Your task to perform on an android device: Search for the best way to get rid of a cold Image 0: 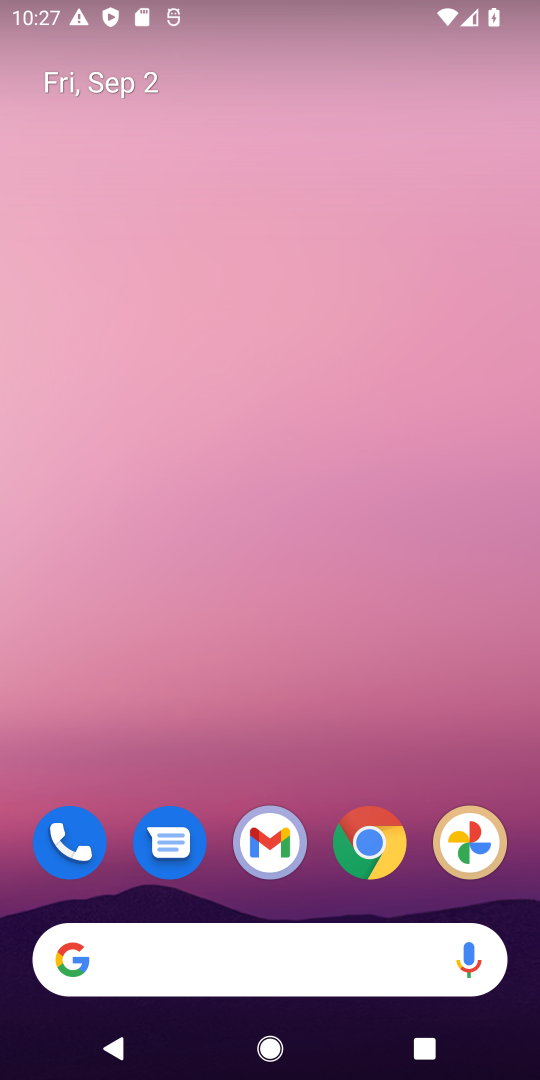
Step 0: drag from (355, 717) to (425, 3)
Your task to perform on an android device: Search for the best way to get rid of a cold Image 1: 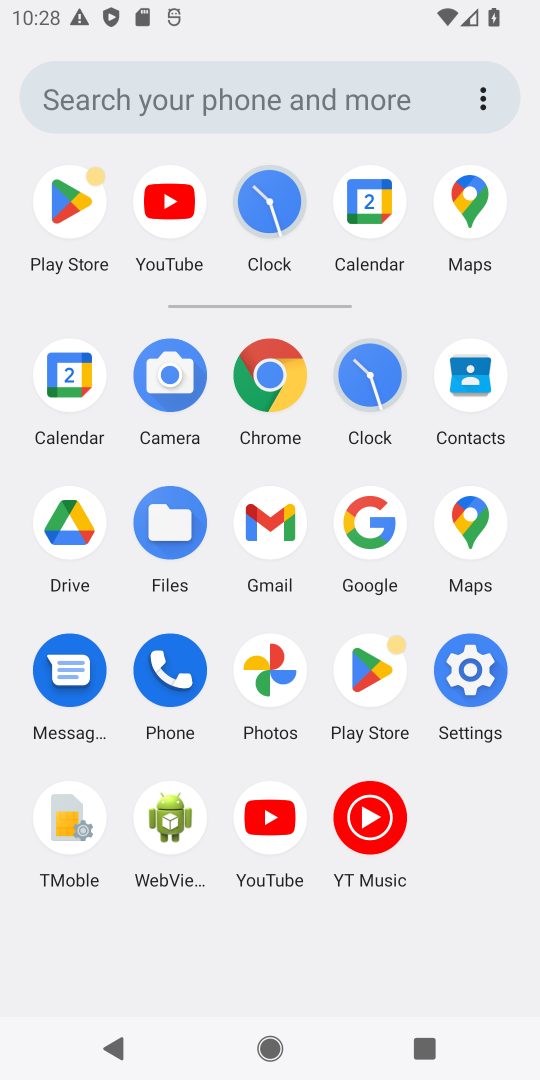
Step 1: click (273, 376)
Your task to perform on an android device: Search for the best way to get rid of a cold Image 2: 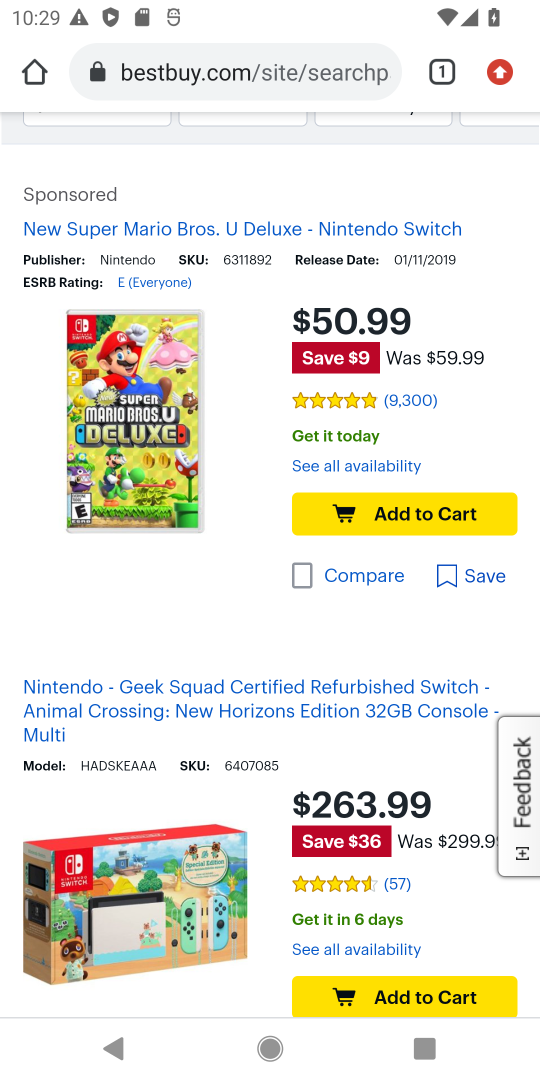
Step 2: task complete